Your task to perform on an android device: Show me productivity apps on the Play Store Image 0: 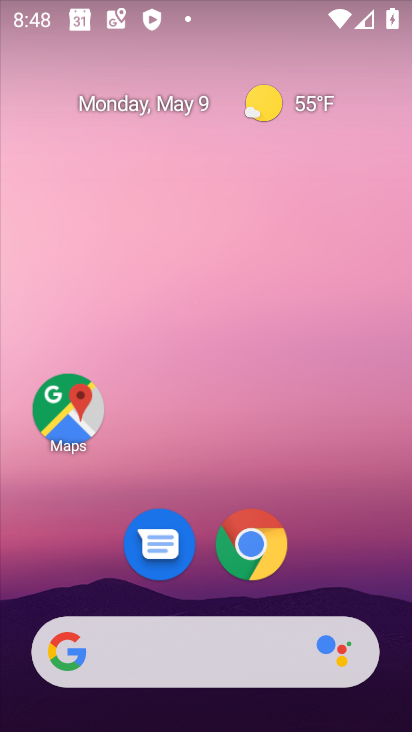
Step 0: drag from (204, 594) to (208, 170)
Your task to perform on an android device: Show me productivity apps on the Play Store Image 1: 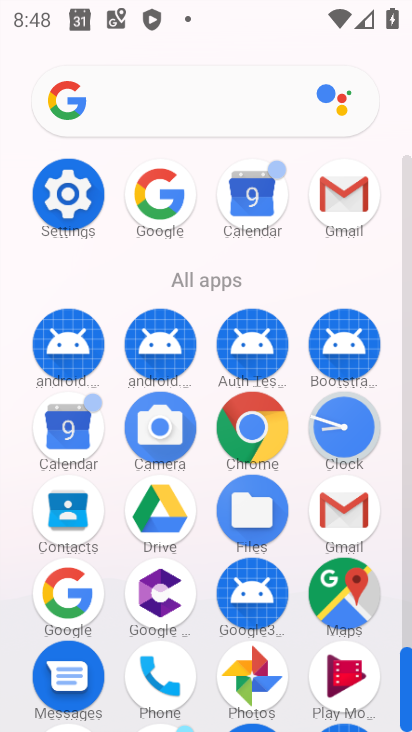
Step 1: drag from (190, 580) to (228, 223)
Your task to perform on an android device: Show me productivity apps on the Play Store Image 2: 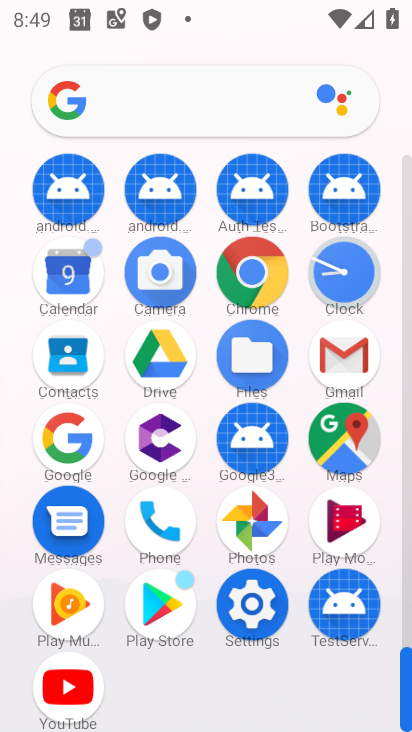
Step 2: click (174, 591)
Your task to perform on an android device: Show me productivity apps on the Play Store Image 3: 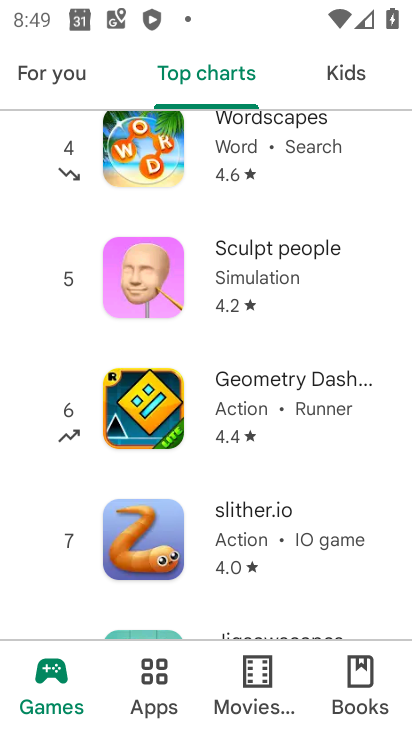
Step 3: click (165, 669)
Your task to perform on an android device: Show me productivity apps on the Play Store Image 4: 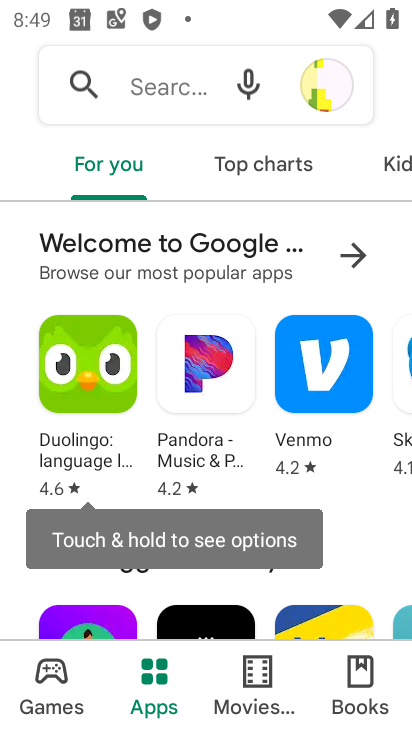
Step 4: drag from (285, 173) to (95, 186)
Your task to perform on an android device: Show me productivity apps on the Play Store Image 5: 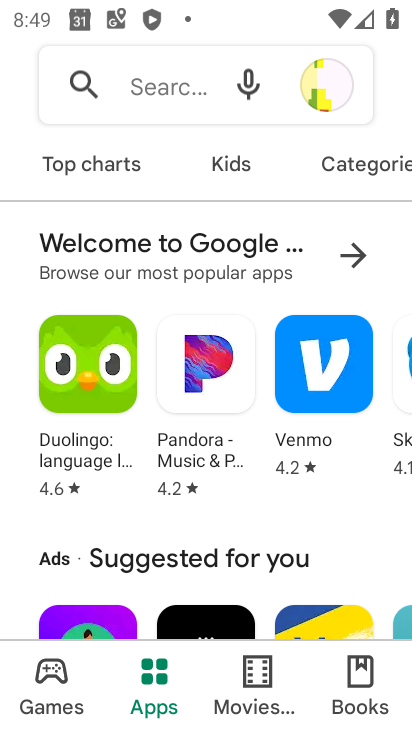
Step 5: drag from (299, 181) to (72, 171)
Your task to perform on an android device: Show me productivity apps on the Play Store Image 6: 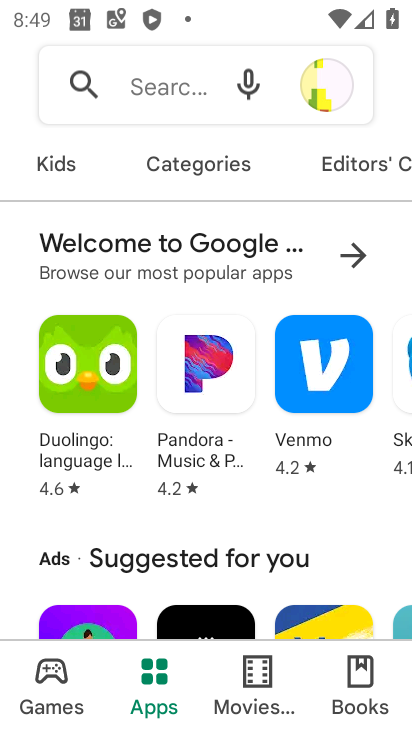
Step 6: click (170, 156)
Your task to perform on an android device: Show me productivity apps on the Play Store Image 7: 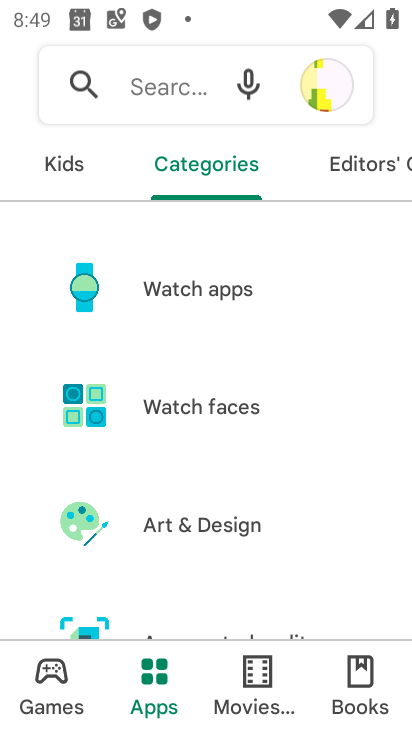
Step 7: drag from (240, 561) to (294, 255)
Your task to perform on an android device: Show me productivity apps on the Play Store Image 8: 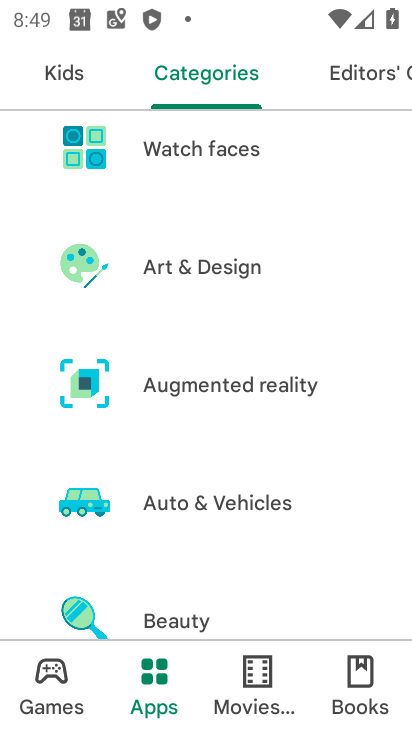
Step 8: drag from (207, 419) to (281, 170)
Your task to perform on an android device: Show me productivity apps on the Play Store Image 9: 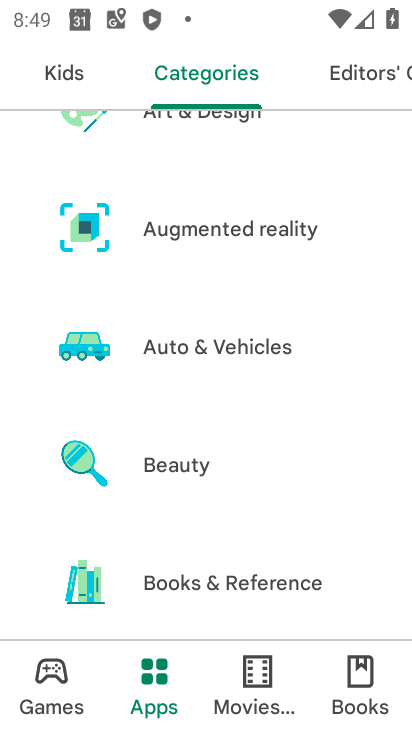
Step 9: drag from (229, 578) to (262, 293)
Your task to perform on an android device: Show me productivity apps on the Play Store Image 10: 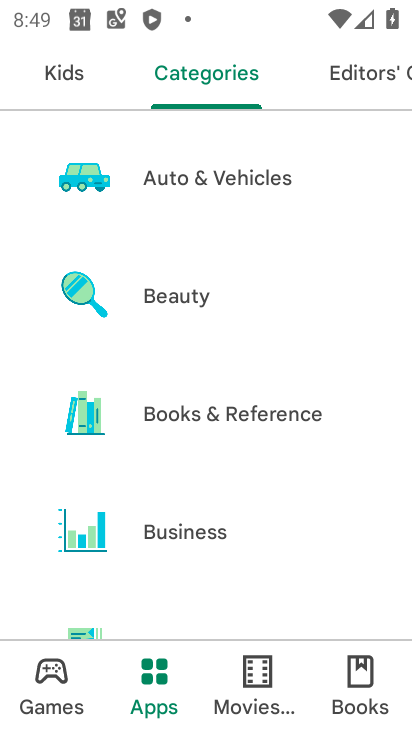
Step 10: drag from (230, 555) to (240, 292)
Your task to perform on an android device: Show me productivity apps on the Play Store Image 11: 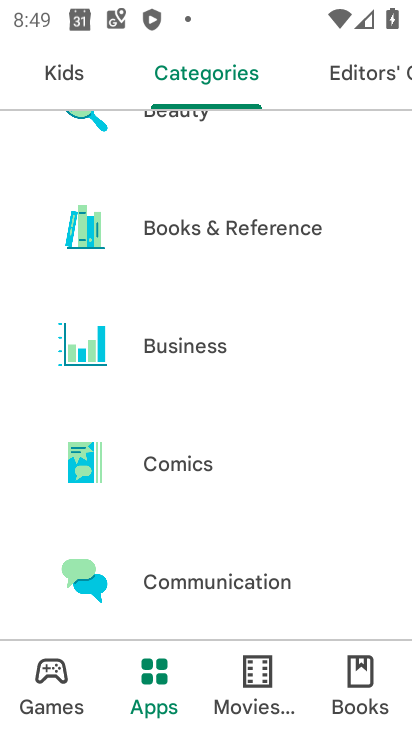
Step 11: drag from (240, 541) to (256, 235)
Your task to perform on an android device: Show me productivity apps on the Play Store Image 12: 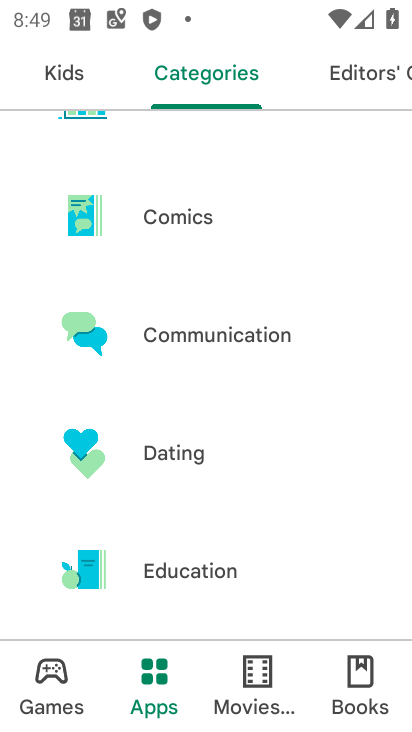
Step 12: drag from (249, 530) to (233, 239)
Your task to perform on an android device: Show me productivity apps on the Play Store Image 13: 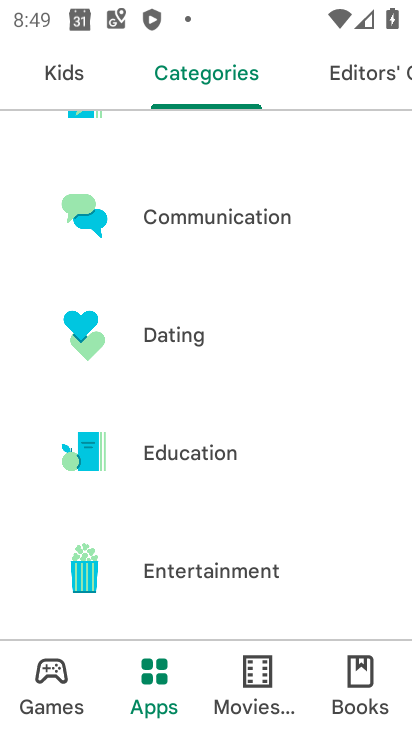
Step 13: drag from (254, 502) to (255, 200)
Your task to perform on an android device: Show me productivity apps on the Play Store Image 14: 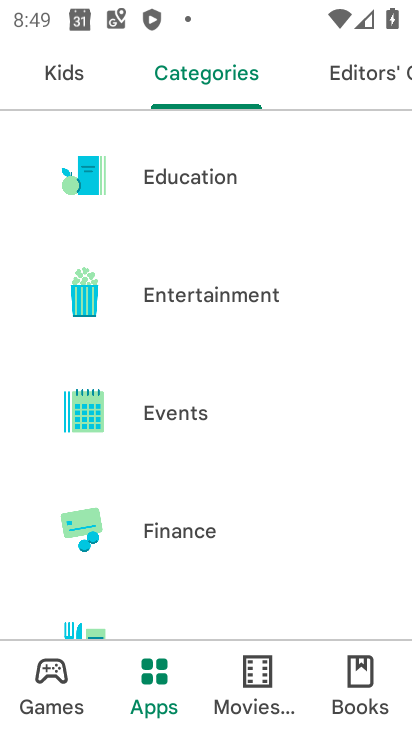
Step 14: drag from (257, 378) to (257, 175)
Your task to perform on an android device: Show me productivity apps on the Play Store Image 15: 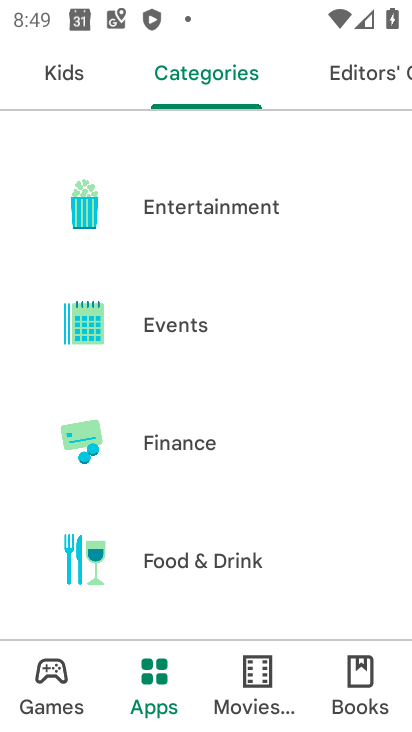
Step 15: drag from (250, 520) to (252, 232)
Your task to perform on an android device: Show me productivity apps on the Play Store Image 16: 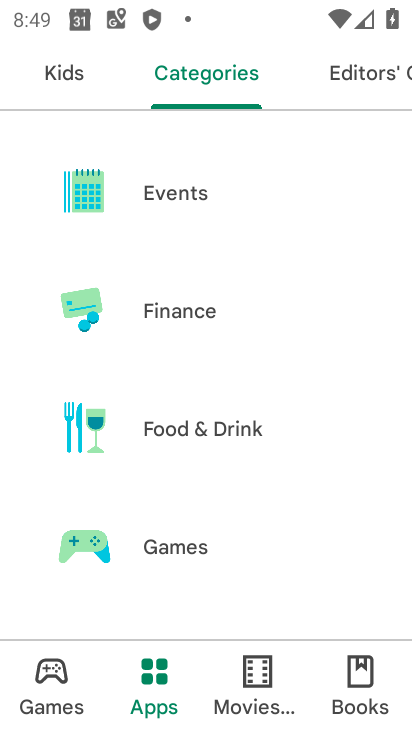
Step 16: drag from (257, 537) to (260, 263)
Your task to perform on an android device: Show me productivity apps on the Play Store Image 17: 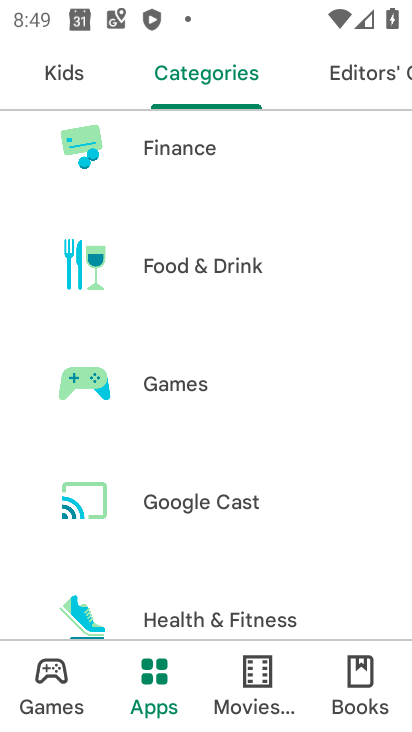
Step 17: drag from (261, 538) to (261, 291)
Your task to perform on an android device: Show me productivity apps on the Play Store Image 18: 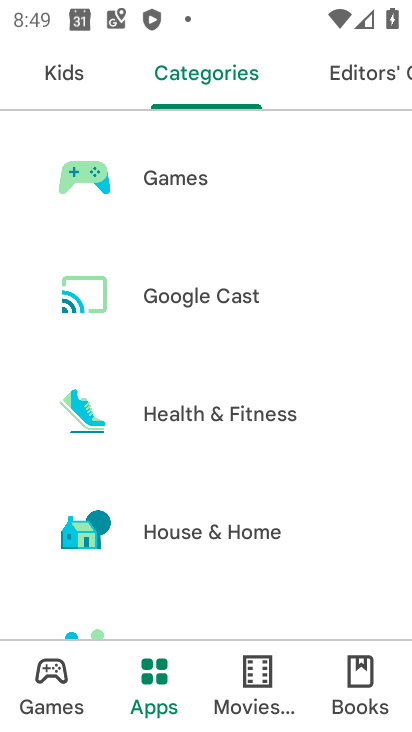
Step 18: drag from (182, 572) to (213, 249)
Your task to perform on an android device: Show me productivity apps on the Play Store Image 19: 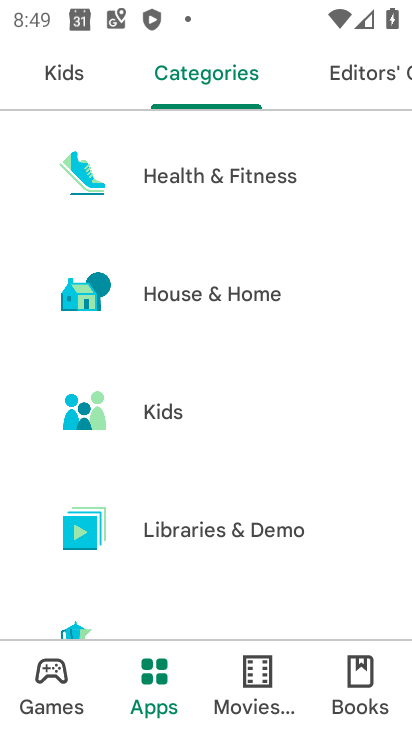
Step 19: drag from (256, 534) to (249, 232)
Your task to perform on an android device: Show me productivity apps on the Play Store Image 20: 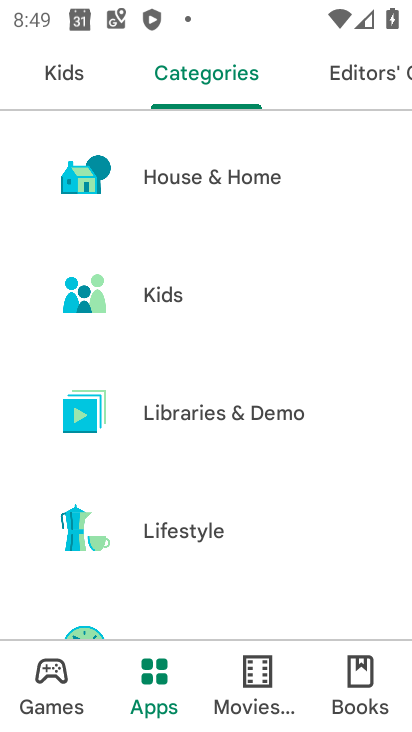
Step 20: drag from (238, 573) to (248, 232)
Your task to perform on an android device: Show me productivity apps on the Play Store Image 21: 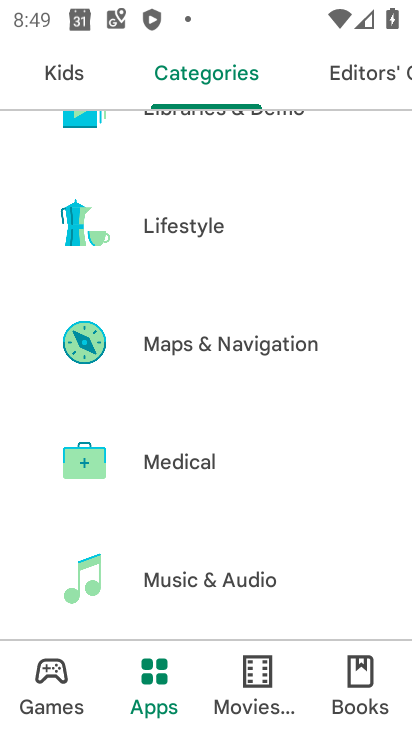
Step 21: drag from (246, 547) to (269, 256)
Your task to perform on an android device: Show me productivity apps on the Play Store Image 22: 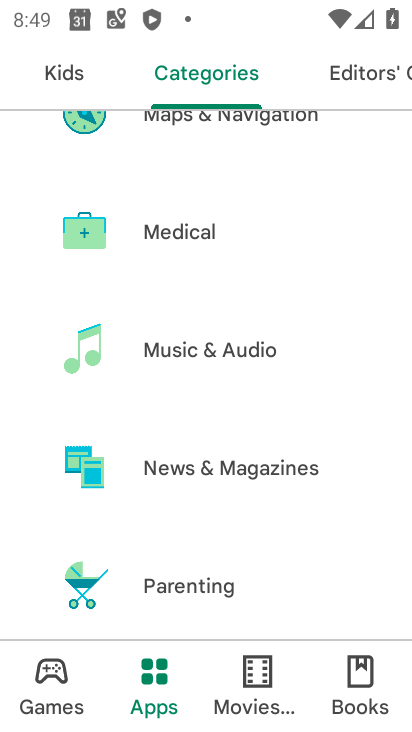
Step 22: drag from (224, 556) to (233, 310)
Your task to perform on an android device: Show me productivity apps on the Play Store Image 23: 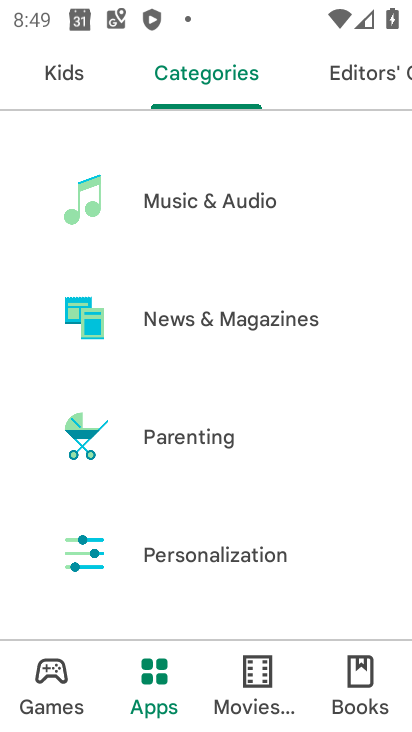
Step 23: drag from (206, 579) to (220, 325)
Your task to perform on an android device: Show me productivity apps on the Play Store Image 24: 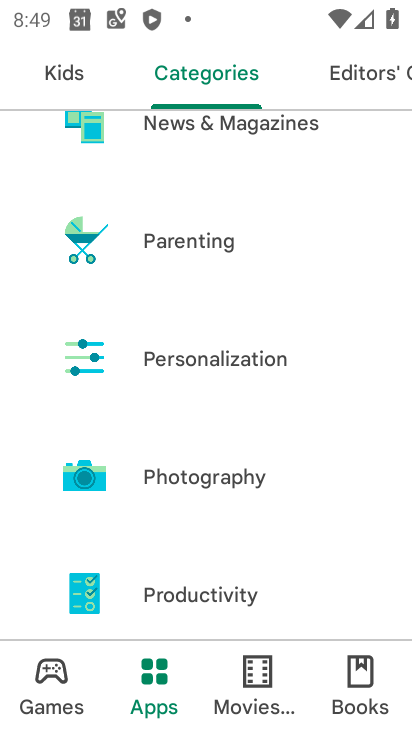
Step 24: click (192, 595)
Your task to perform on an android device: Show me productivity apps on the Play Store Image 25: 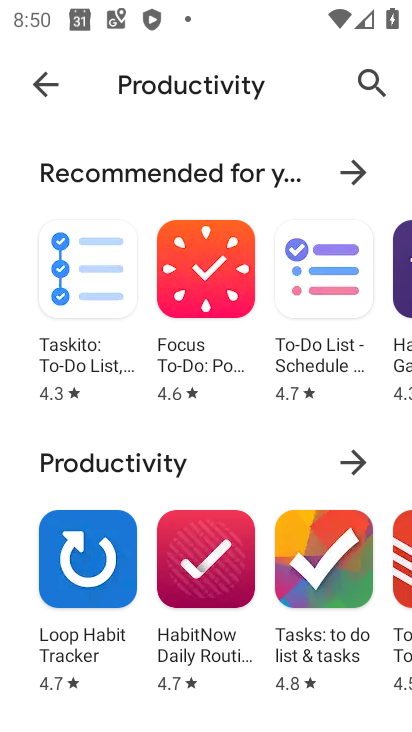
Step 25: task complete